Your task to perform on an android device: change notifications settings Image 0: 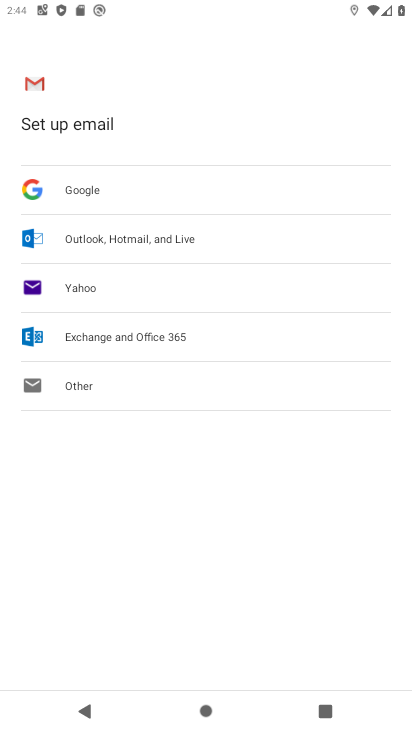
Step 0: press home button
Your task to perform on an android device: change notifications settings Image 1: 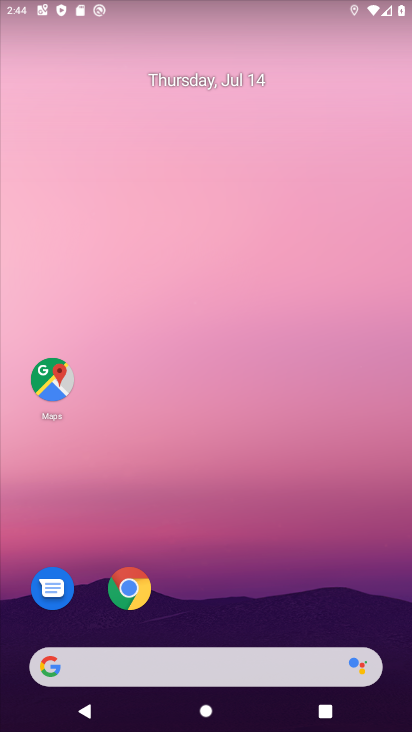
Step 1: drag from (210, 633) to (241, 0)
Your task to perform on an android device: change notifications settings Image 2: 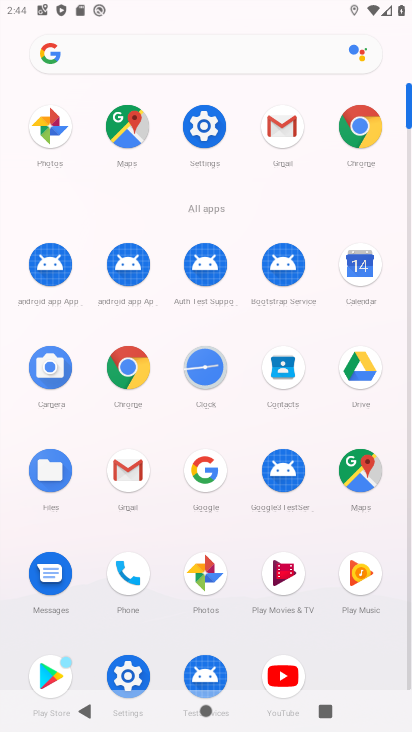
Step 2: click (205, 120)
Your task to perform on an android device: change notifications settings Image 3: 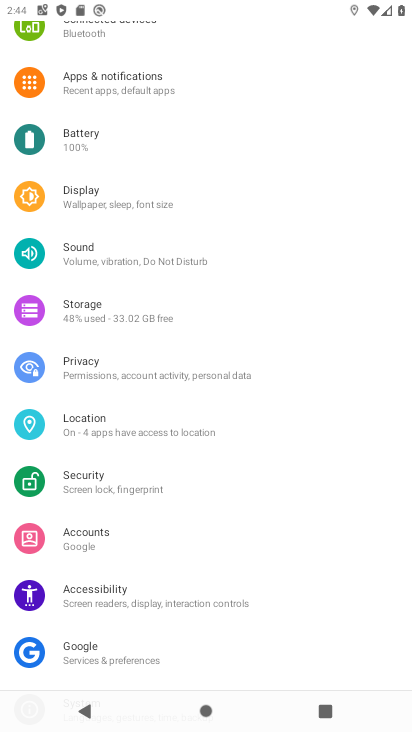
Step 3: click (74, 94)
Your task to perform on an android device: change notifications settings Image 4: 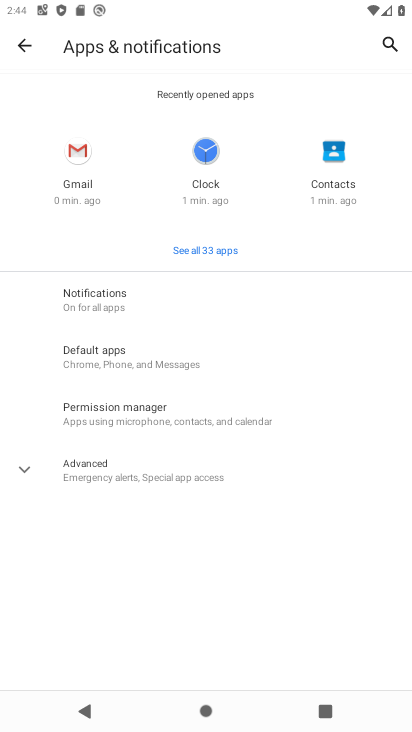
Step 4: click (94, 309)
Your task to perform on an android device: change notifications settings Image 5: 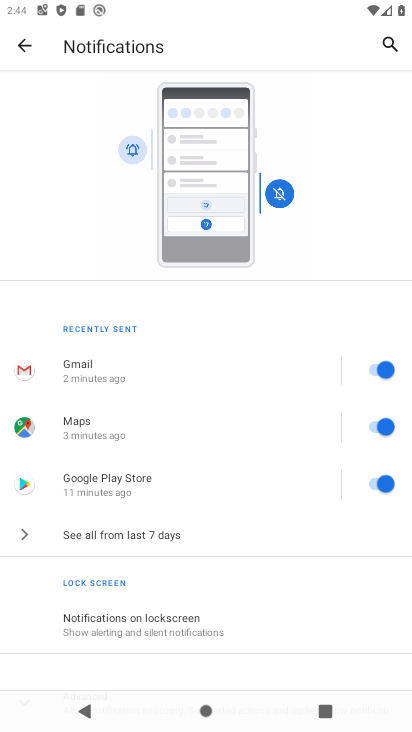
Step 5: click (103, 540)
Your task to perform on an android device: change notifications settings Image 6: 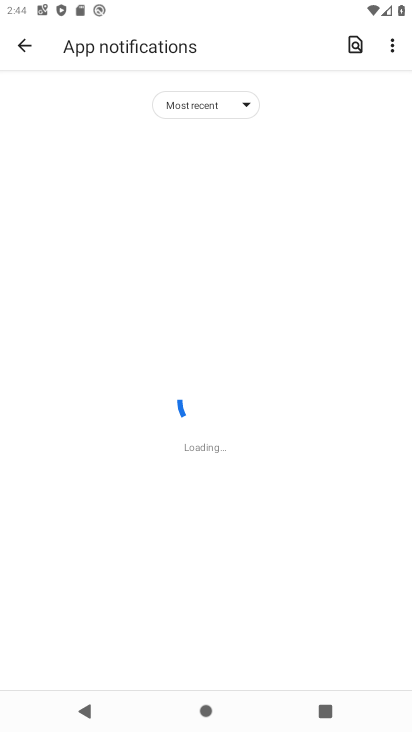
Step 6: click (232, 97)
Your task to perform on an android device: change notifications settings Image 7: 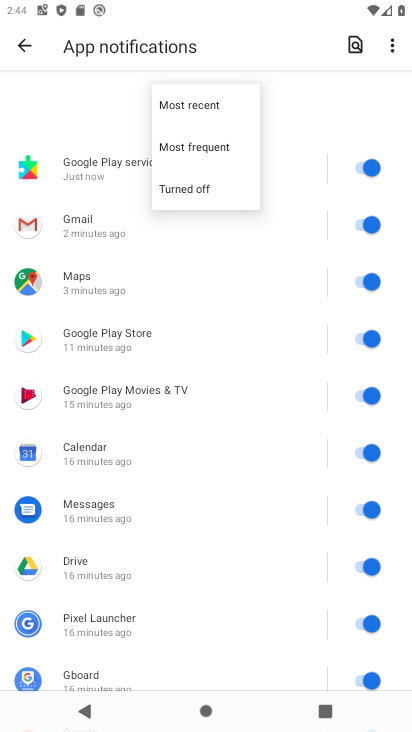
Step 7: click (216, 191)
Your task to perform on an android device: change notifications settings Image 8: 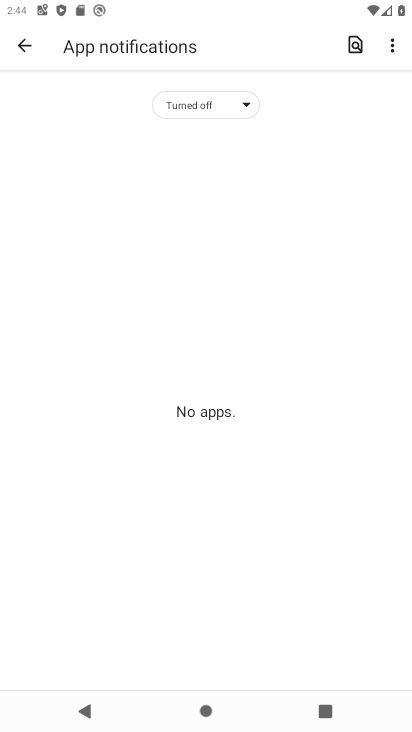
Step 8: task complete